Your task to perform on an android device: turn off sleep mode Image 0: 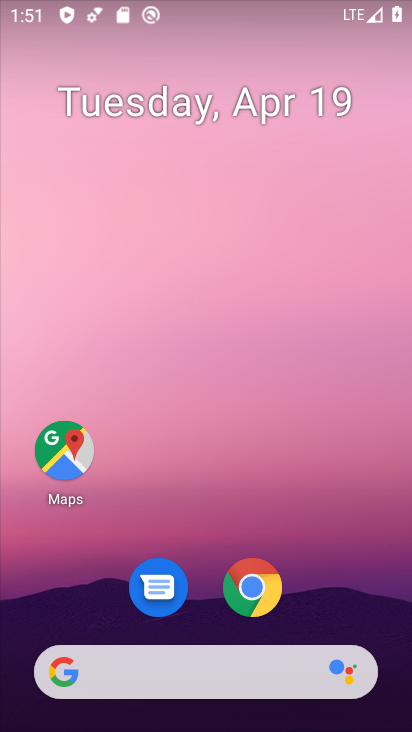
Step 0: drag from (183, 503) to (158, 131)
Your task to perform on an android device: turn off sleep mode Image 1: 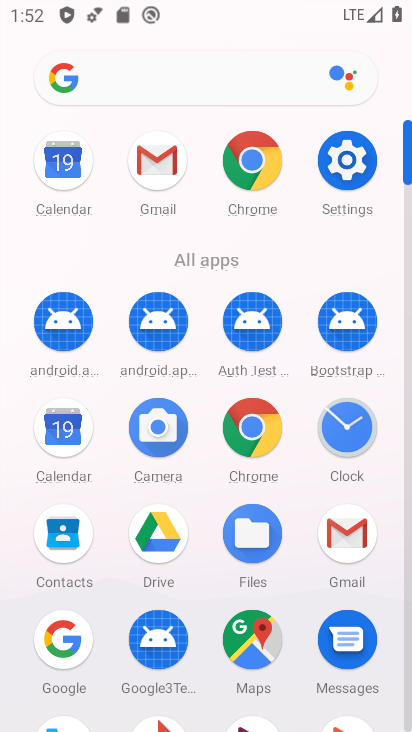
Step 1: click (344, 158)
Your task to perform on an android device: turn off sleep mode Image 2: 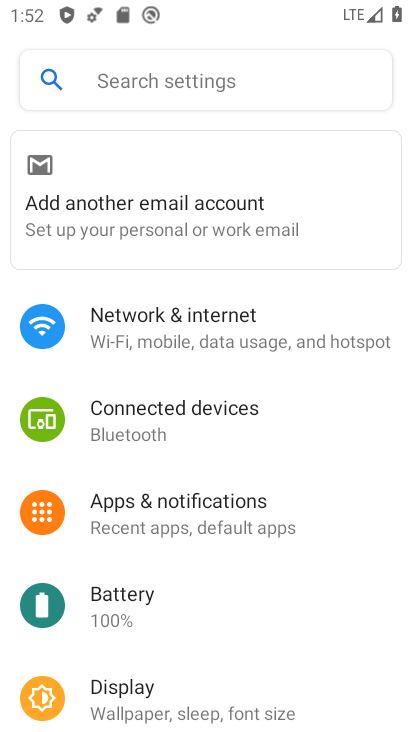
Step 2: drag from (195, 617) to (243, 348)
Your task to perform on an android device: turn off sleep mode Image 3: 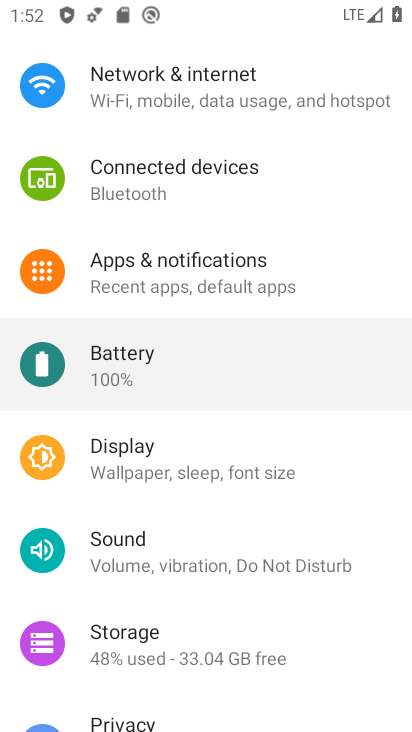
Step 3: drag from (276, 579) to (231, 314)
Your task to perform on an android device: turn off sleep mode Image 4: 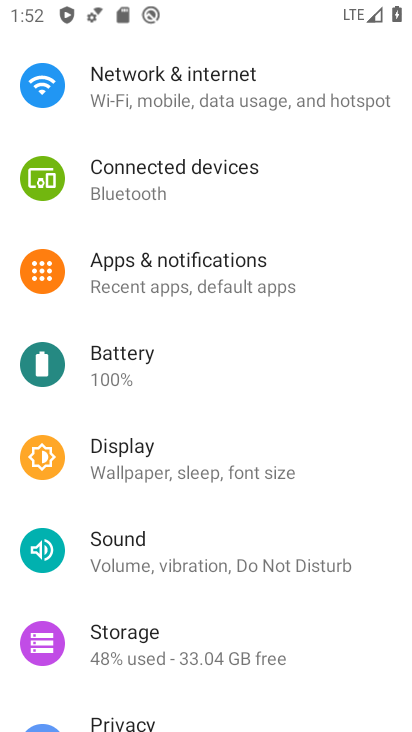
Step 4: click (137, 456)
Your task to perform on an android device: turn off sleep mode Image 5: 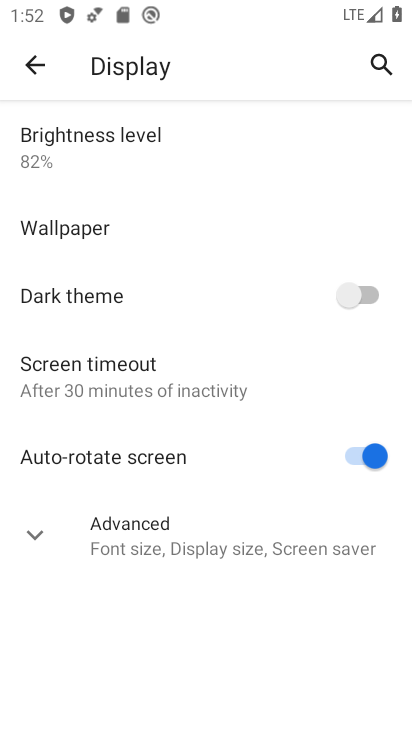
Step 5: task complete